Your task to perform on an android device: install app "Gboard" Image 0: 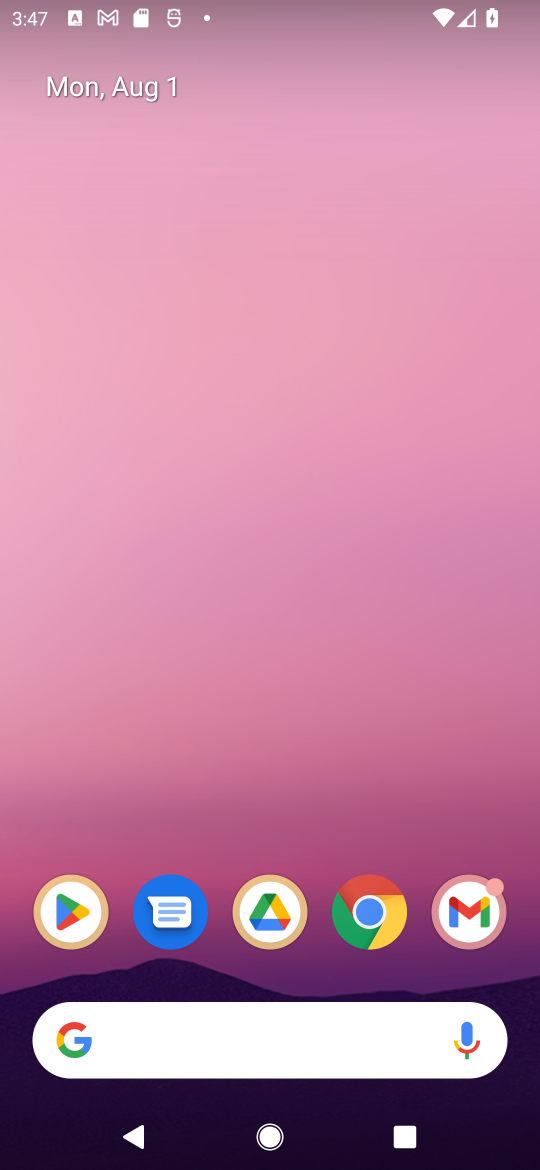
Step 0: click (80, 908)
Your task to perform on an android device: install app "Gboard" Image 1: 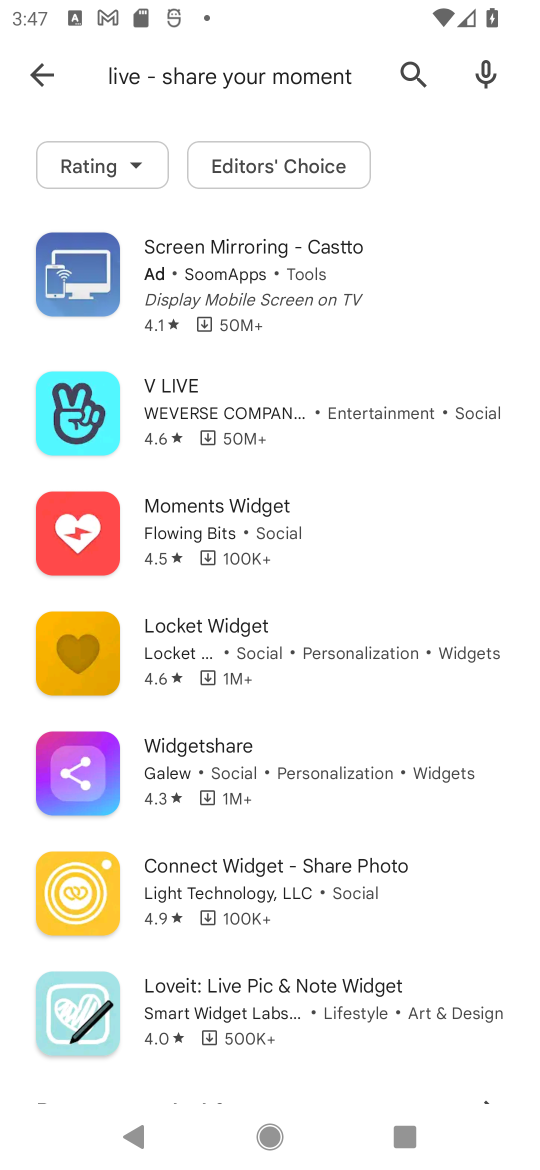
Step 1: click (406, 81)
Your task to perform on an android device: install app "Gboard" Image 2: 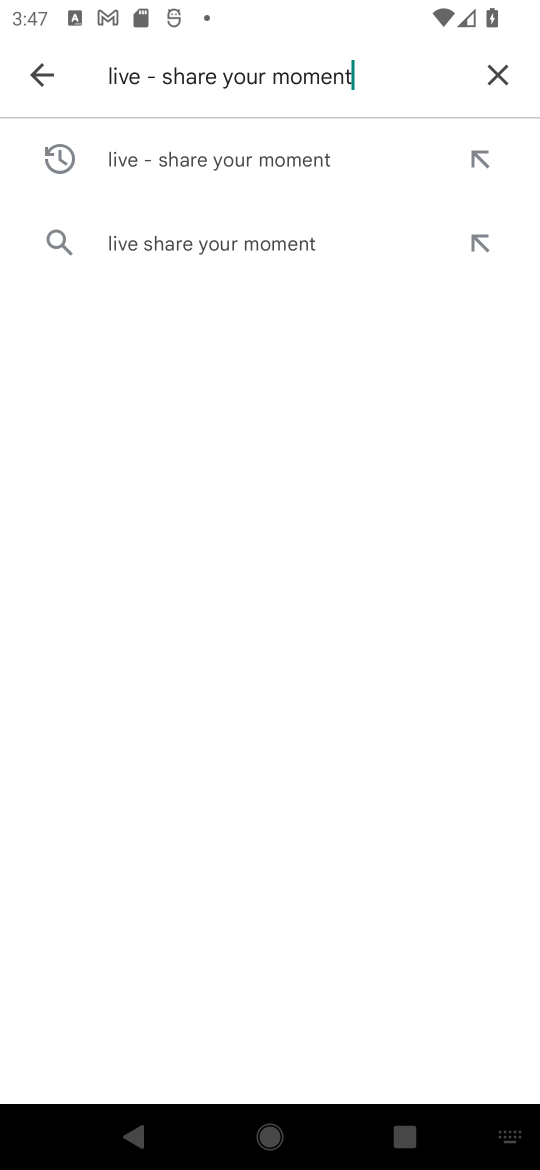
Step 2: click (497, 75)
Your task to perform on an android device: install app "Gboard" Image 3: 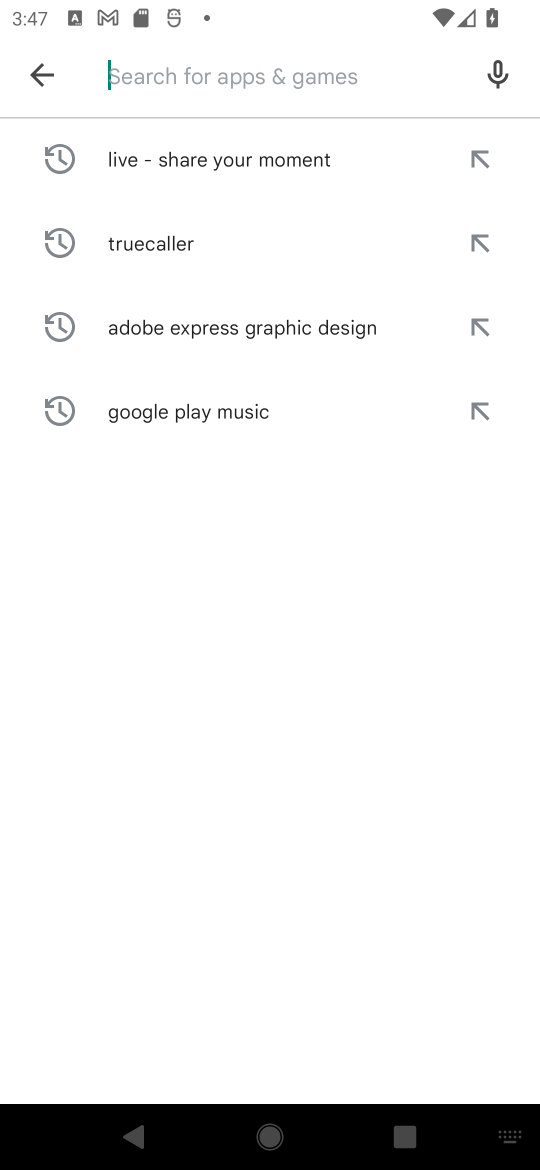
Step 3: type "Gboard"
Your task to perform on an android device: install app "Gboard" Image 4: 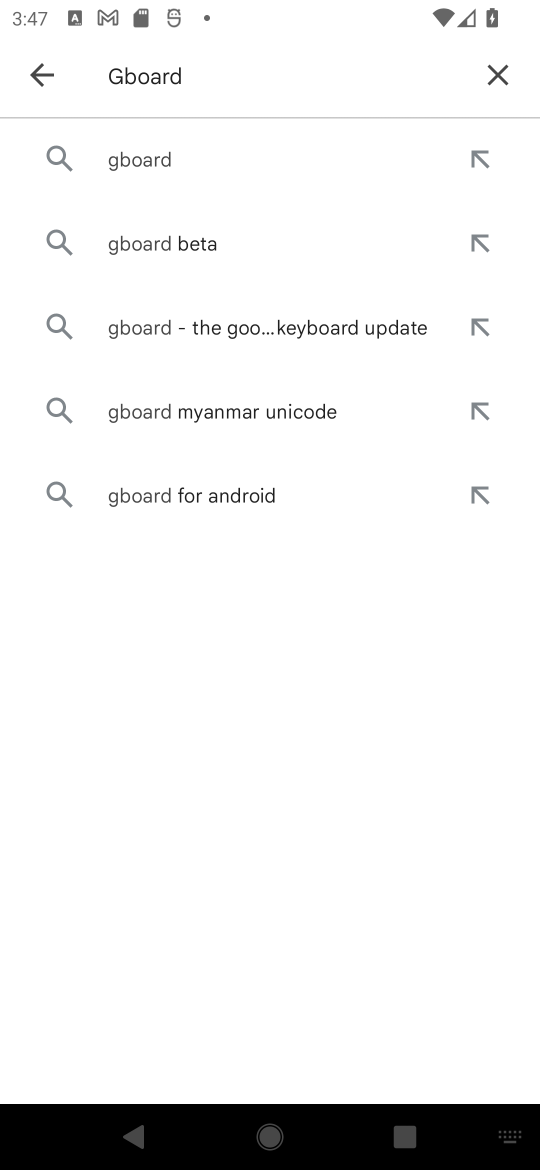
Step 4: click (122, 170)
Your task to perform on an android device: install app "Gboard" Image 5: 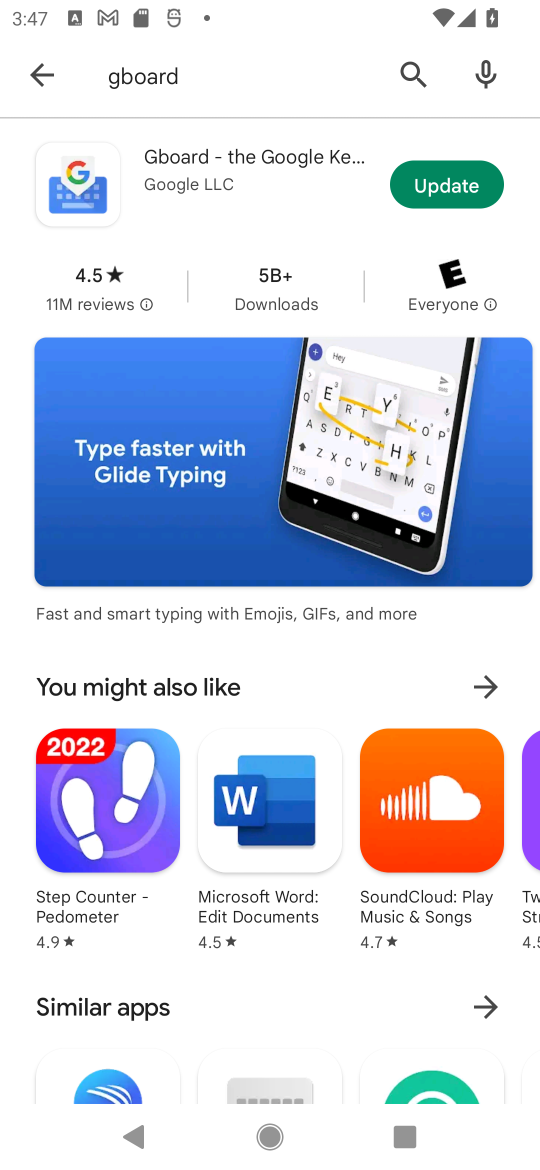
Step 5: task complete